Your task to perform on an android device: Open Google Chrome and open the bookmarks view Image 0: 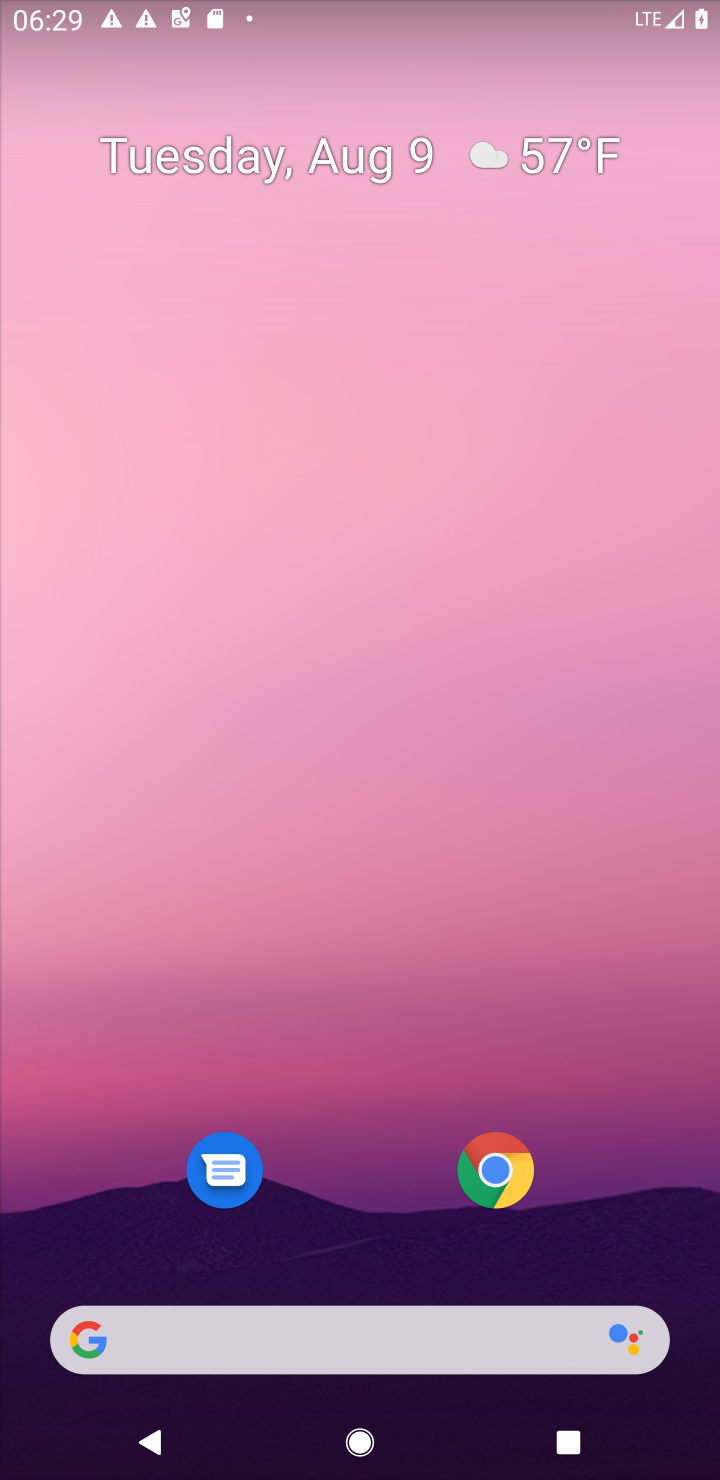
Step 0: press home button
Your task to perform on an android device: Open Google Chrome and open the bookmarks view Image 1: 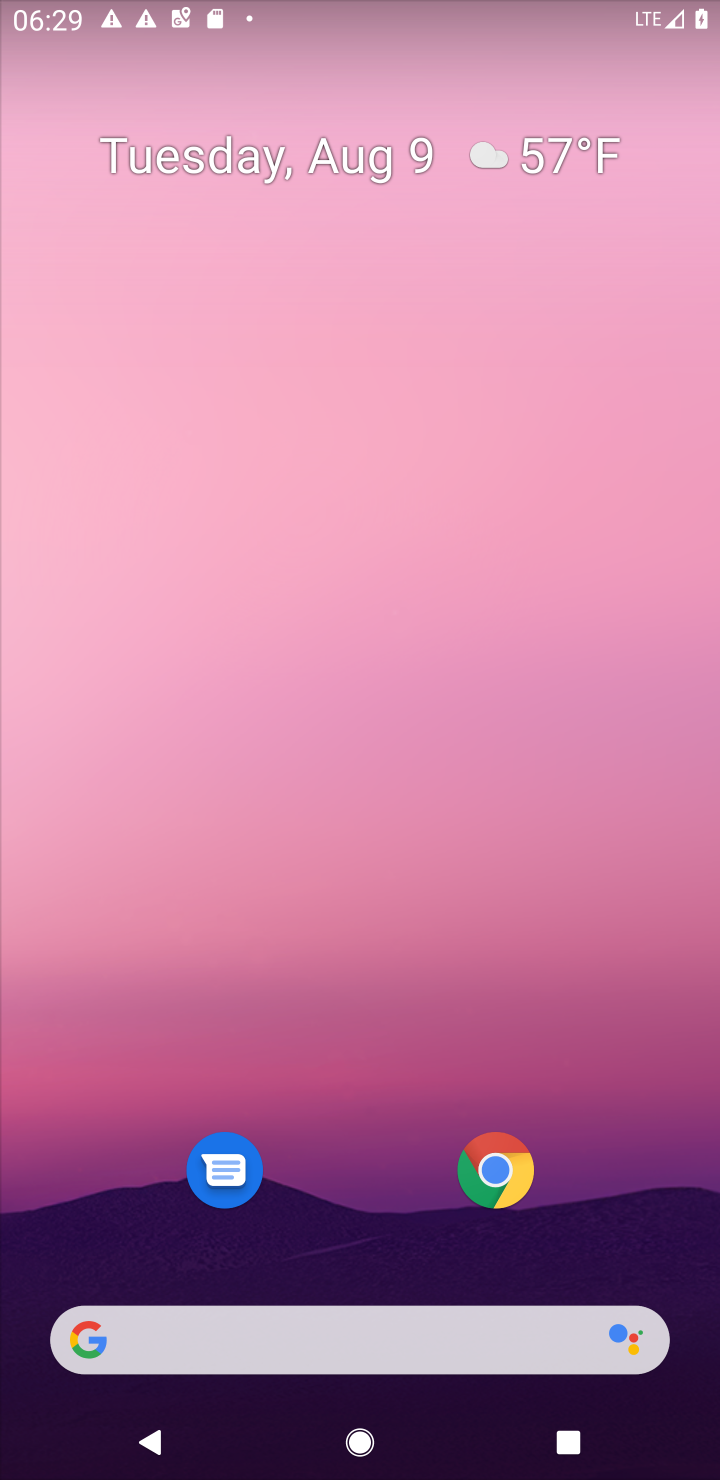
Step 1: drag from (365, 1006) to (285, 182)
Your task to perform on an android device: Open Google Chrome and open the bookmarks view Image 2: 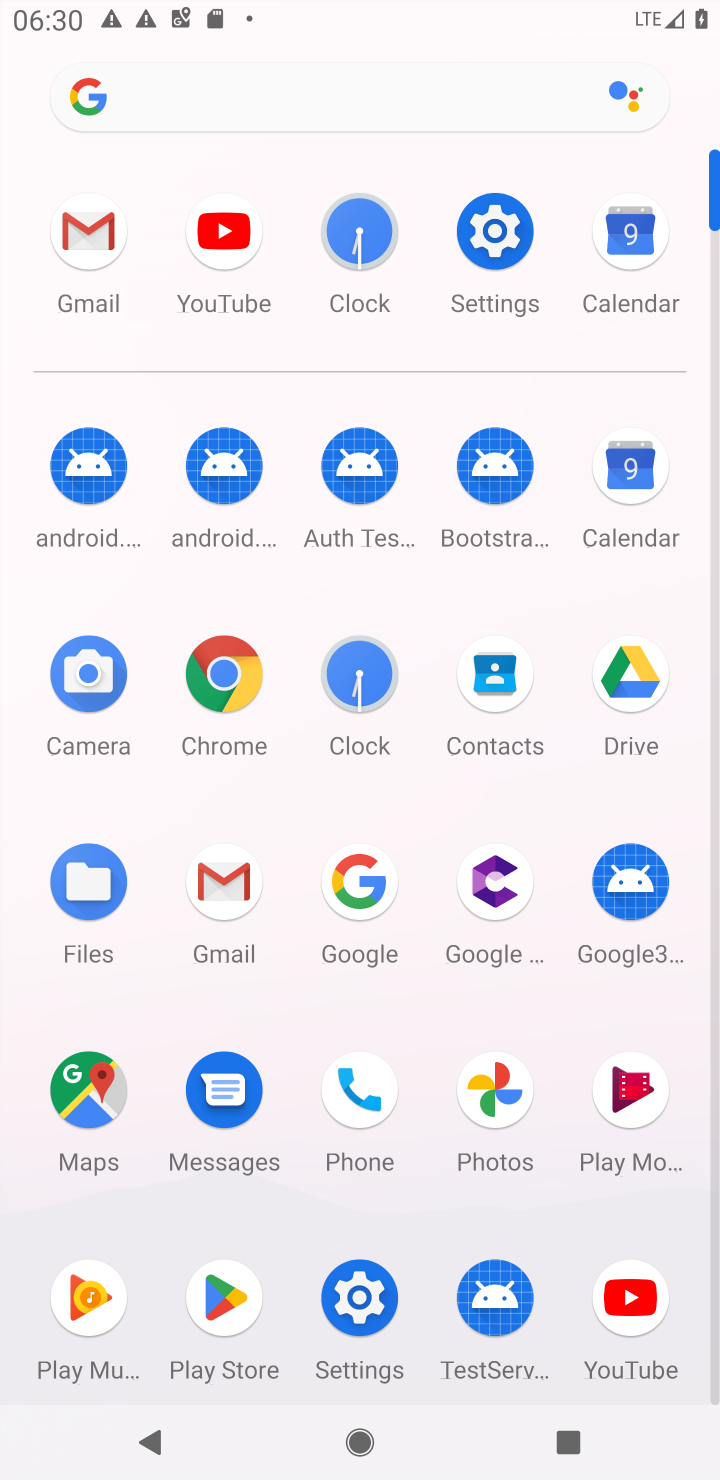
Step 2: click (208, 685)
Your task to perform on an android device: Open Google Chrome and open the bookmarks view Image 3: 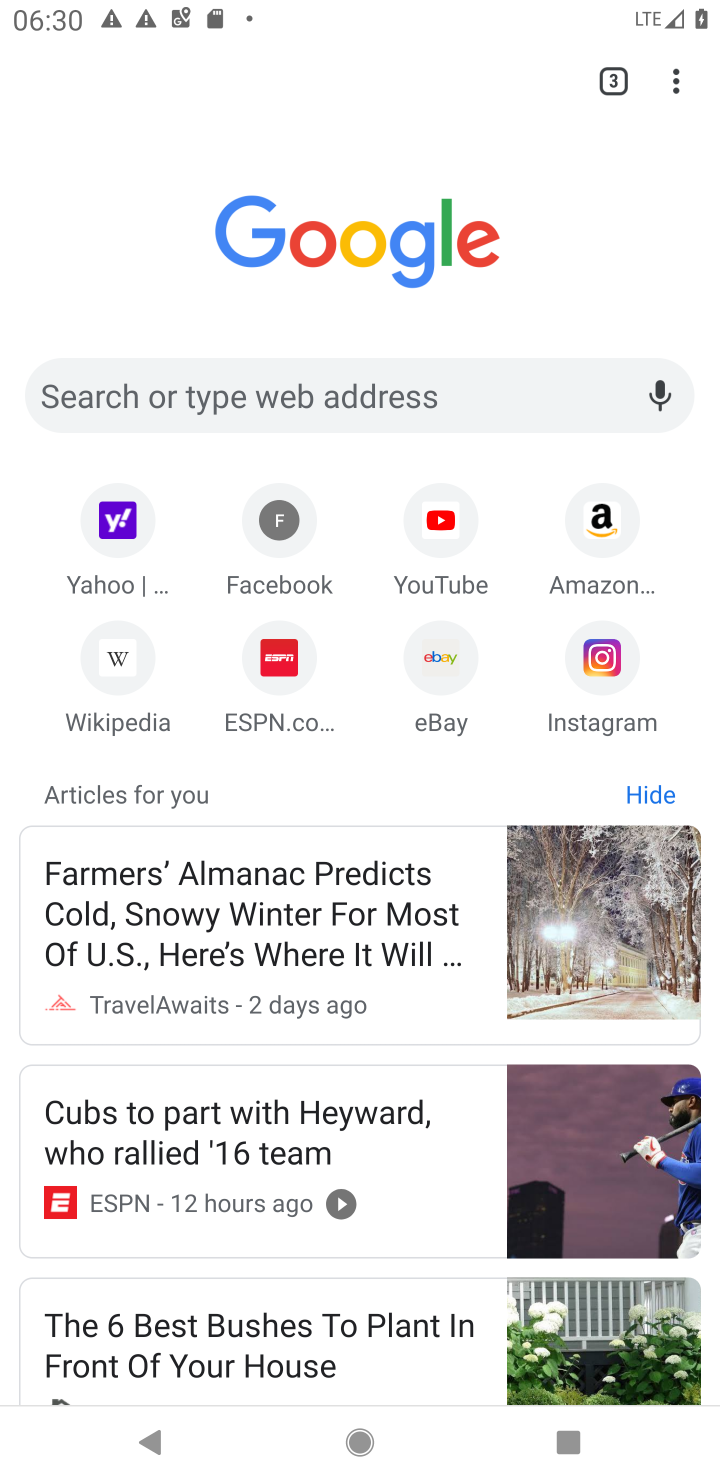
Step 3: task complete